Your task to perform on an android device: Go to wifi settings Image 0: 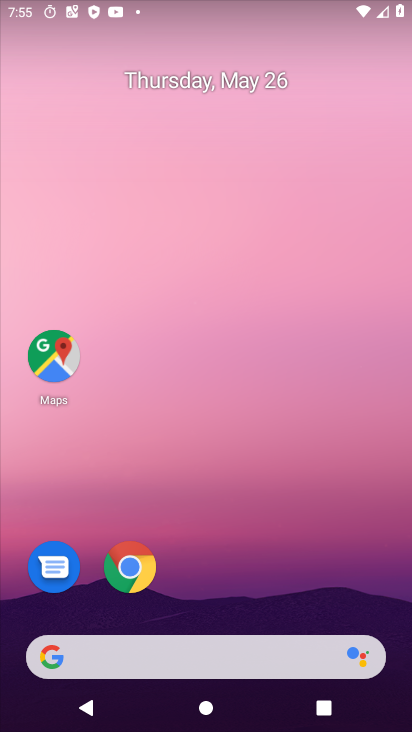
Step 0: drag from (188, 655) to (289, 137)
Your task to perform on an android device: Go to wifi settings Image 1: 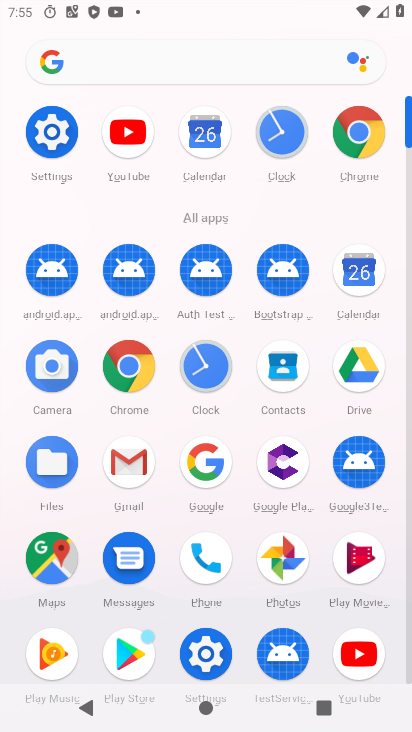
Step 1: click (56, 133)
Your task to perform on an android device: Go to wifi settings Image 2: 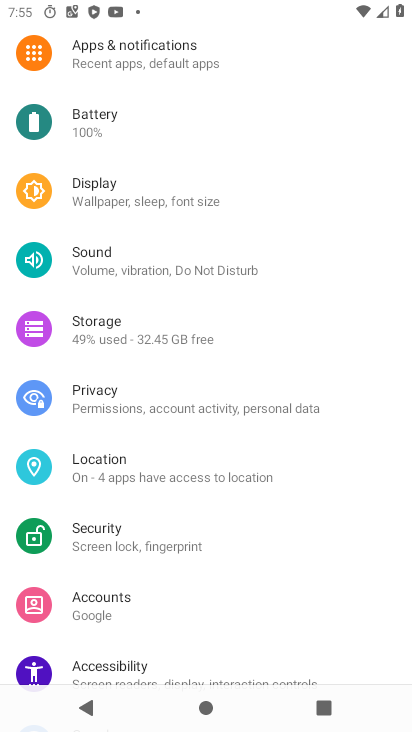
Step 2: drag from (297, 103) to (286, 453)
Your task to perform on an android device: Go to wifi settings Image 3: 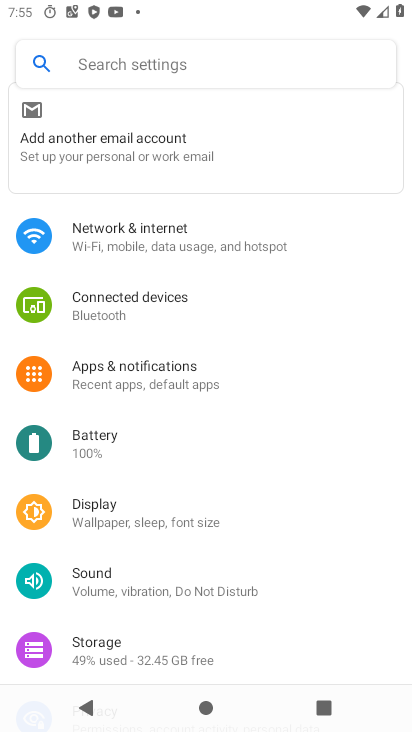
Step 3: click (153, 232)
Your task to perform on an android device: Go to wifi settings Image 4: 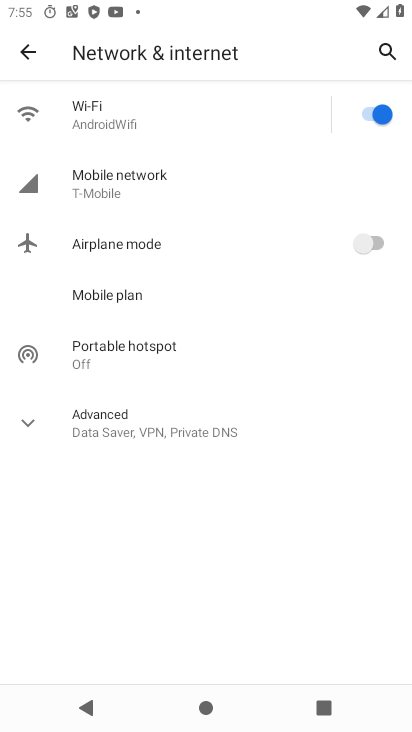
Step 4: click (110, 119)
Your task to perform on an android device: Go to wifi settings Image 5: 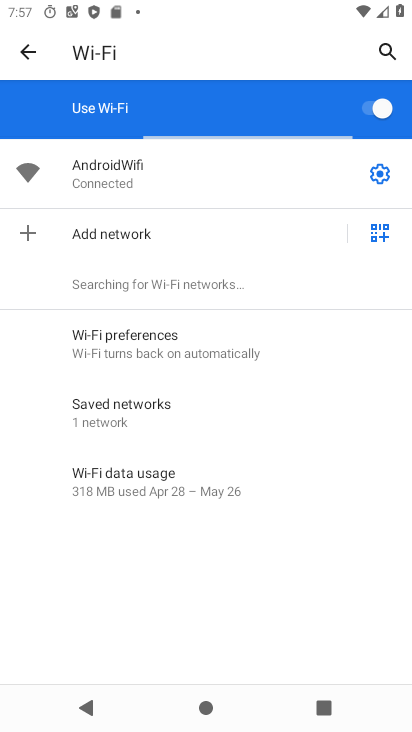
Step 5: task complete